Your task to perform on an android device: find which apps use the phone's location Image 0: 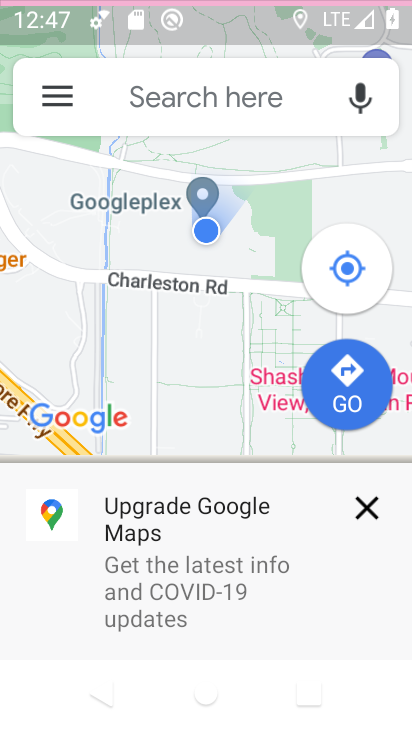
Step 0: drag from (345, 356) to (339, 6)
Your task to perform on an android device: find which apps use the phone's location Image 1: 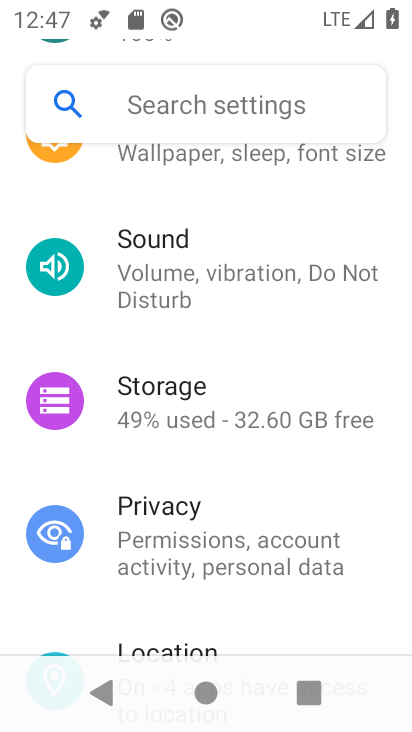
Step 1: press home button
Your task to perform on an android device: find which apps use the phone's location Image 2: 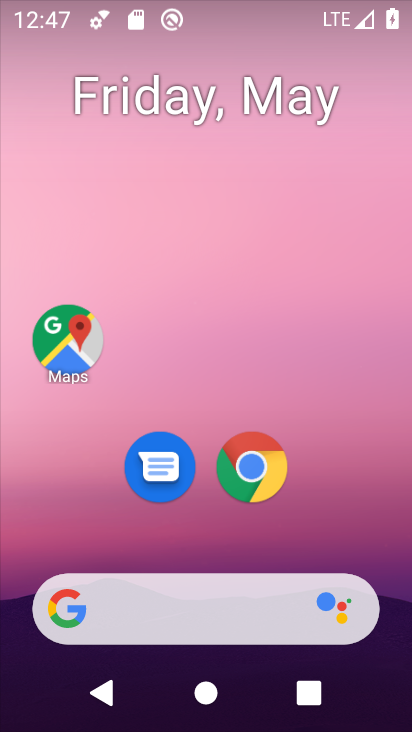
Step 2: drag from (366, 524) to (357, 143)
Your task to perform on an android device: find which apps use the phone's location Image 3: 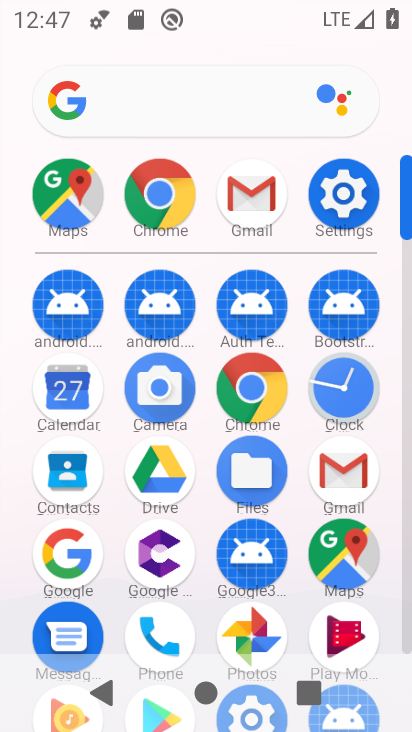
Step 3: click (333, 174)
Your task to perform on an android device: find which apps use the phone's location Image 4: 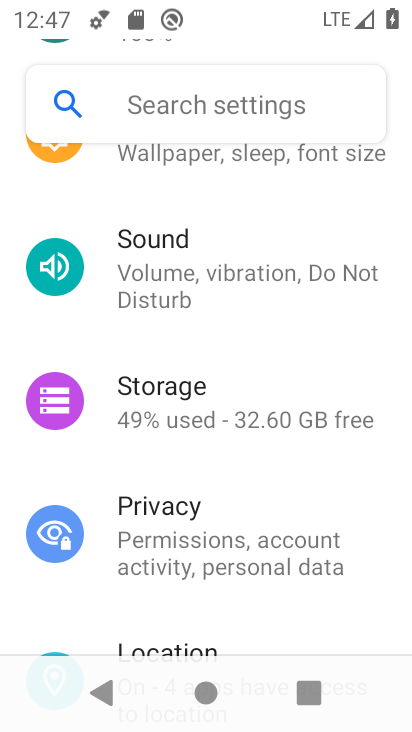
Step 4: drag from (242, 577) to (279, 246)
Your task to perform on an android device: find which apps use the phone's location Image 5: 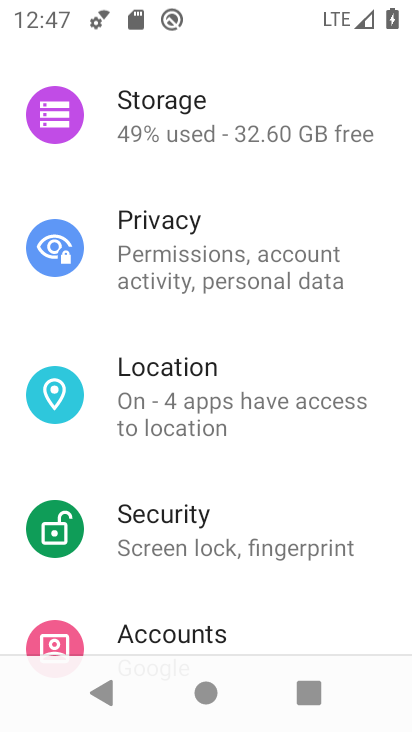
Step 5: click (218, 401)
Your task to perform on an android device: find which apps use the phone's location Image 6: 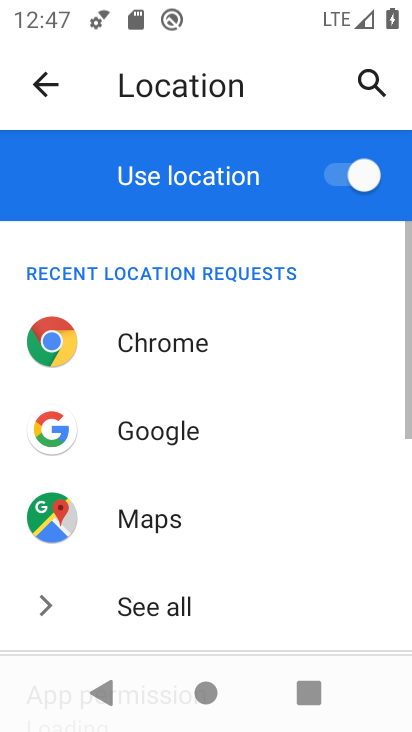
Step 6: drag from (233, 533) to (258, 118)
Your task to perform on an android device: find which apps use the phone's location Image 7: 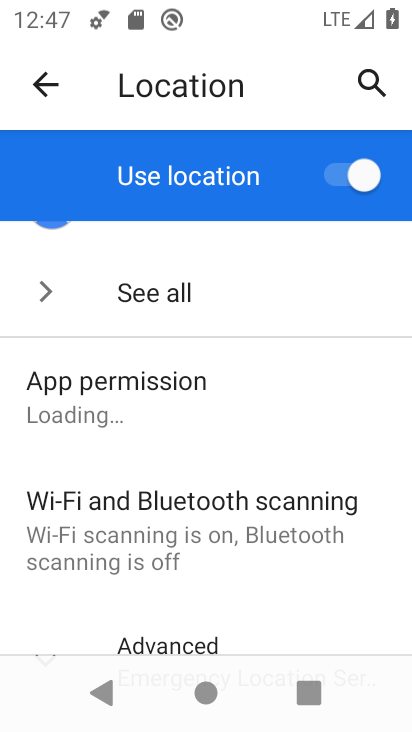
Step 7: click (137, 410)
Your task to perform on an android device: find which apps use the phone's location Image 8: 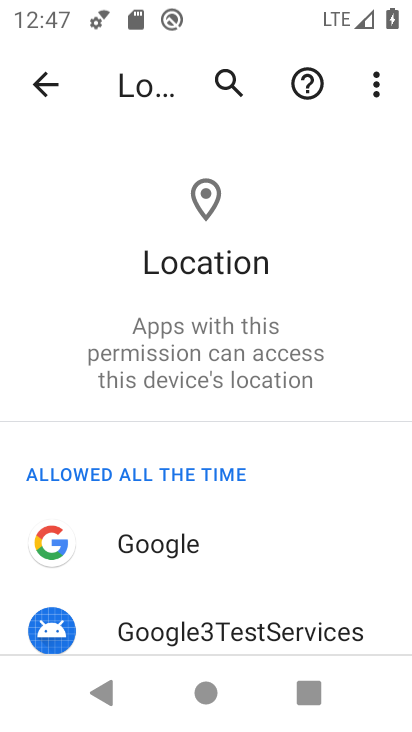
Step 8: task complete